Your task to perform on an android device: refresh tabs in the chrome app Image 0: 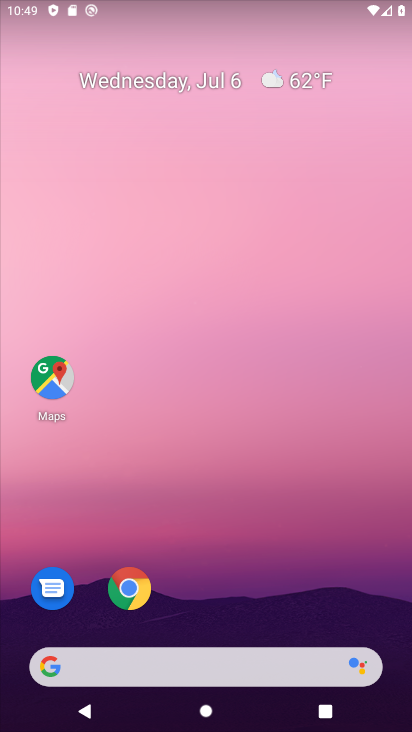
Step 0: click (136, 588)
Your task to perform on an android device: refresh tabs in the chrome app Image 1: 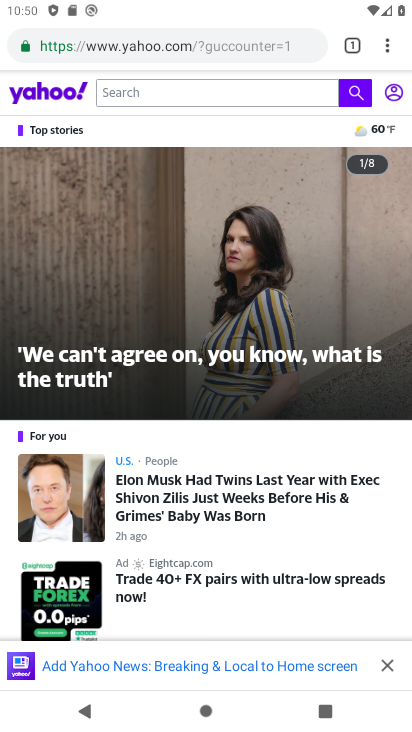
Step 1: click (387, 50)
Your task to perform on an android device: refresh tabs in the chrome app Image 2: 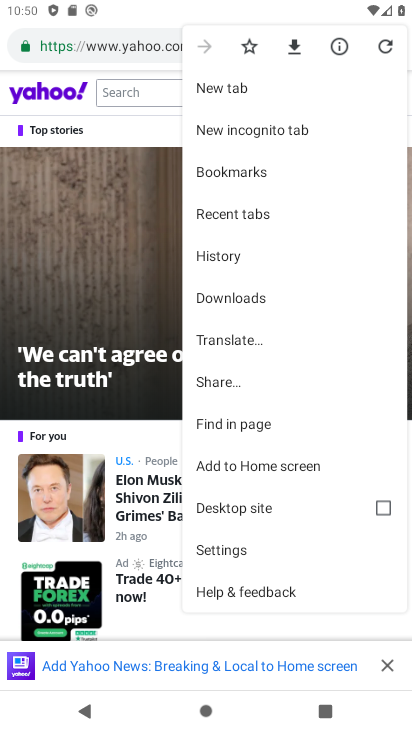
Step 2: click (391, 44)
Your task to perform on an android device: refresh tabs in the chrome app Image 3: 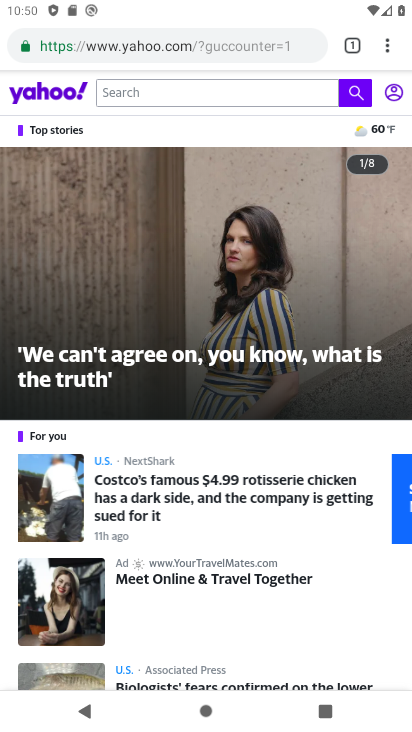
Step 3: task complete